Your task to perform on an android device: Go to accessibility settings Image 0: 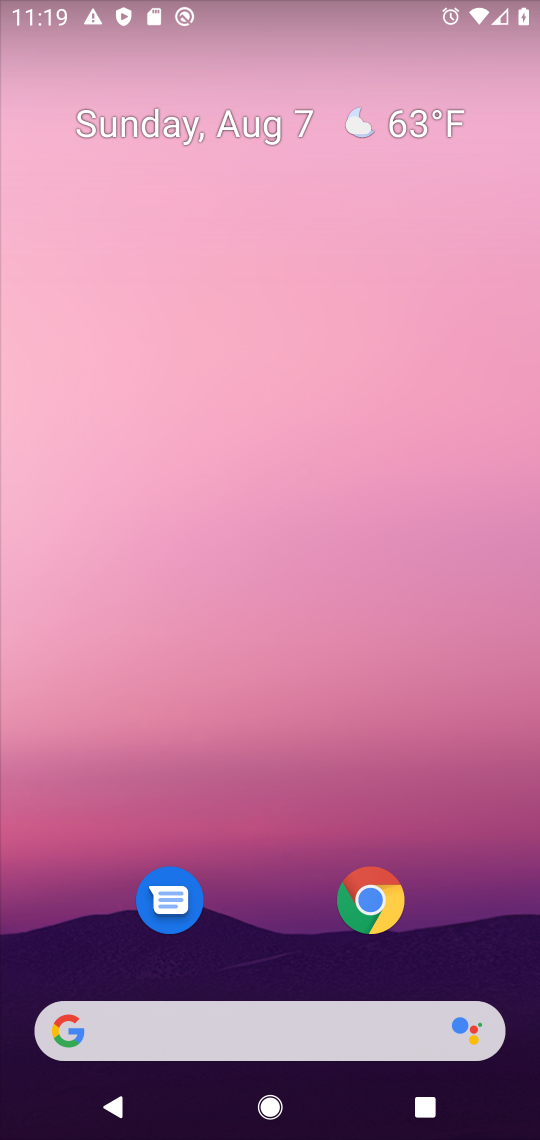
Step 0: press home button
Your task to perform on an android device: Go to accessibility settings Image 1: 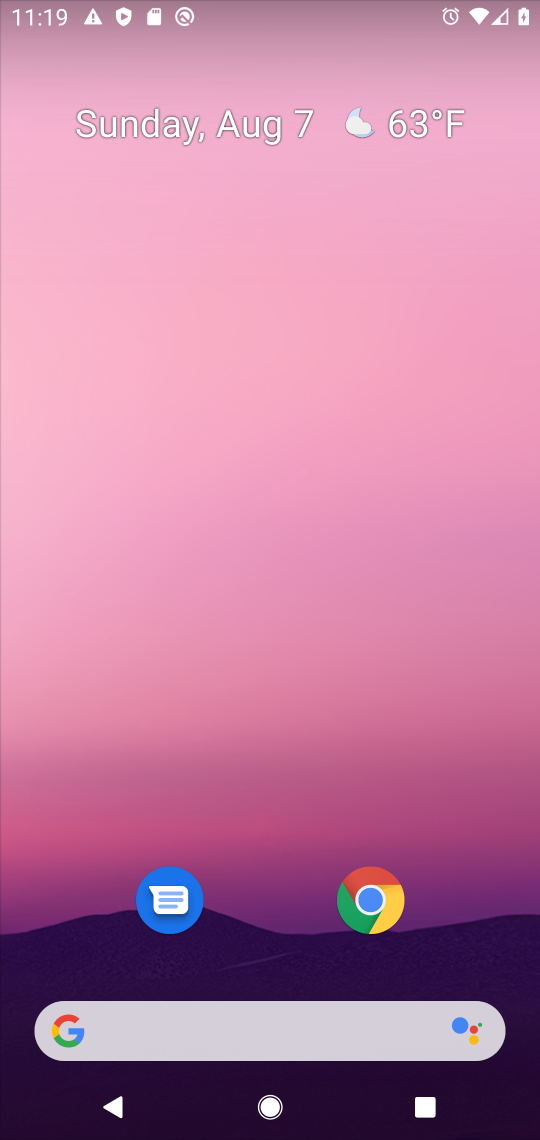
Step 1: drag from (277, 967) to (269, 138)
Your task to perform on an android device: Go to accessibility settings Image 2: 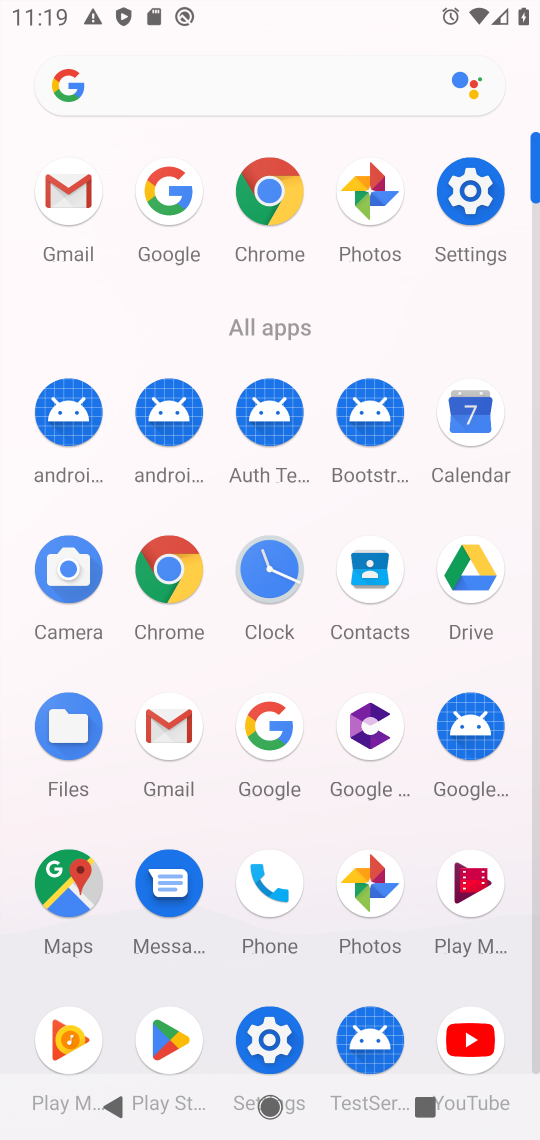
Step 2: click (266, 1030)
Your task to perform on an android device: Go to accessibility settings Image 3: 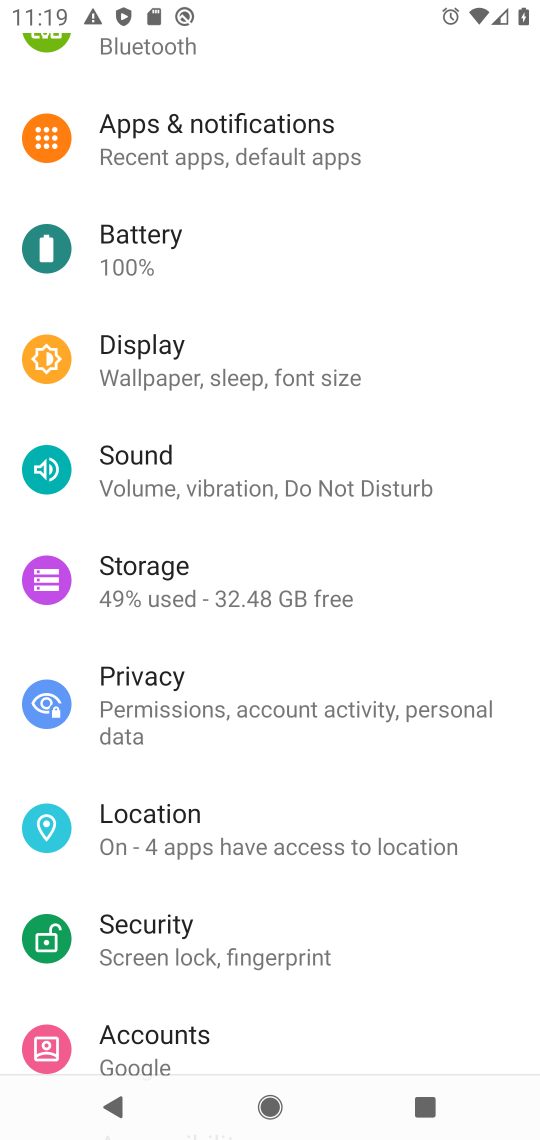
Step 3: drag from (231, 1010) to (254, 324)
Your task to perform on an android device: Go to accessibility settings Image 4: 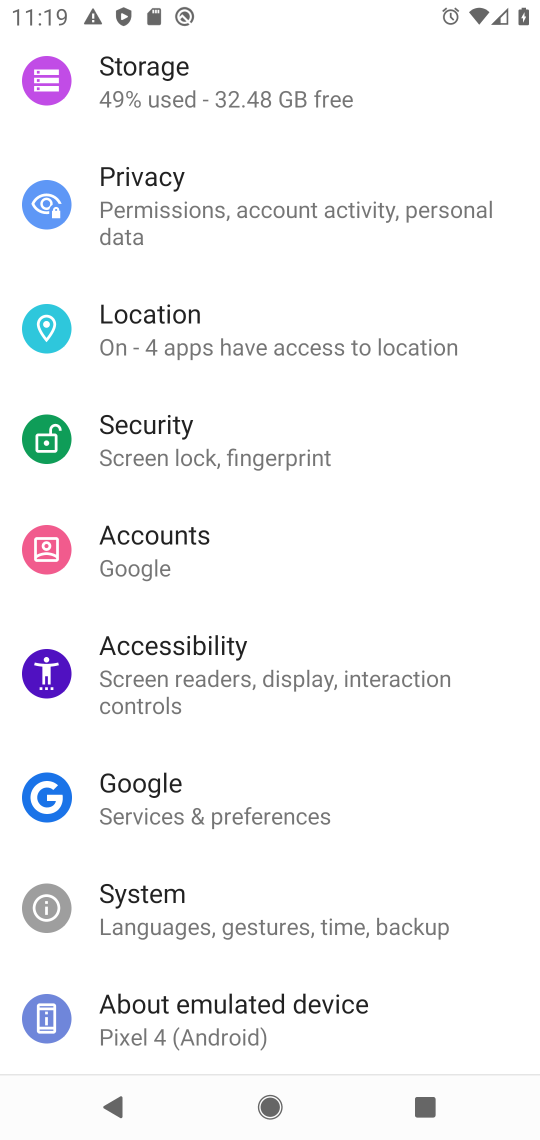
Step 4: click (231, 654)
Your task to perform on an android device: Go to accessibility settings Image 5: 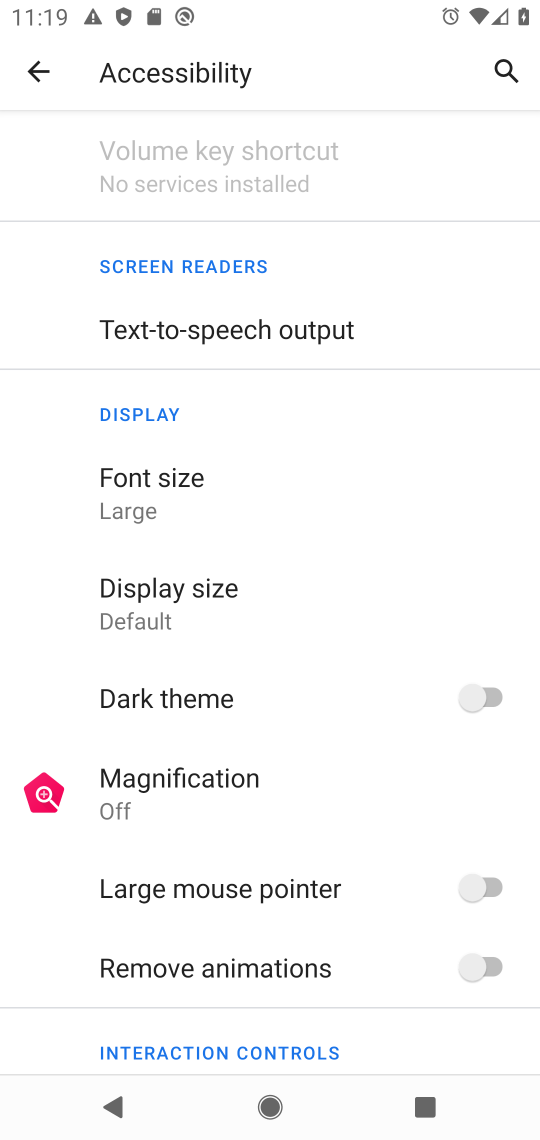
Step 5: task complete